Your task to perform on an android device: Go to calendar. Show me events next week Image 0: 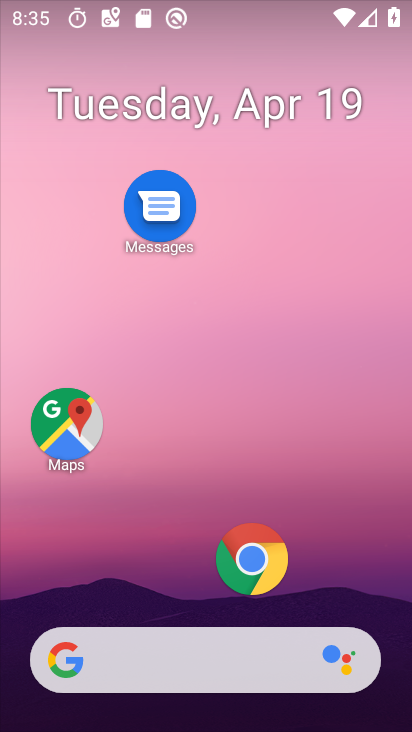
Step 0: drag from (275, 634) to (201, 99)
Your task to perform on an android device: Go to calendar. Show me events next week Image 1: 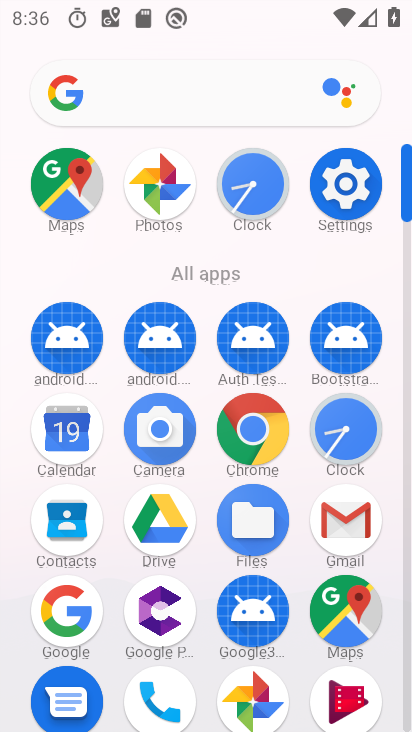
Step 1: click (49, 440)
Your task to perform on an android device: Go to calendar. Show me events next week Image 2: 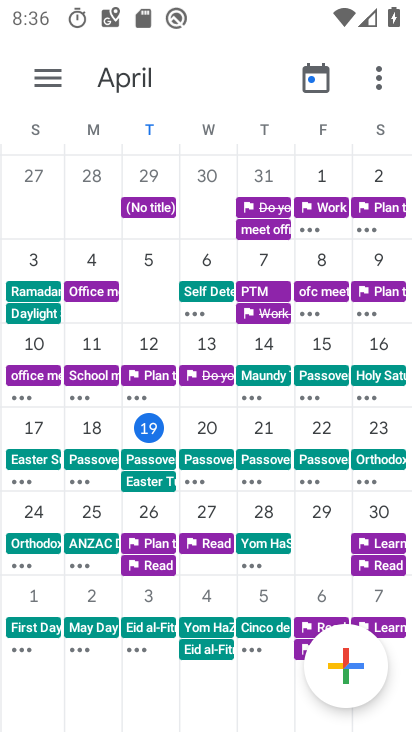
Step 2: task complete